Your task to perform on an android device: Open Google Chrome and click the shortcut for Amazon.com Image 0: 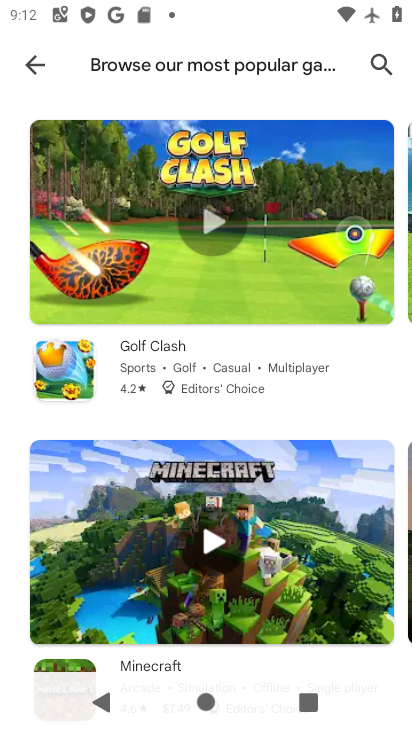
Step 0: press home button
Your task to perform on an android device: Open Google Chrome and click the shortcut for Amazon.com Image 1: 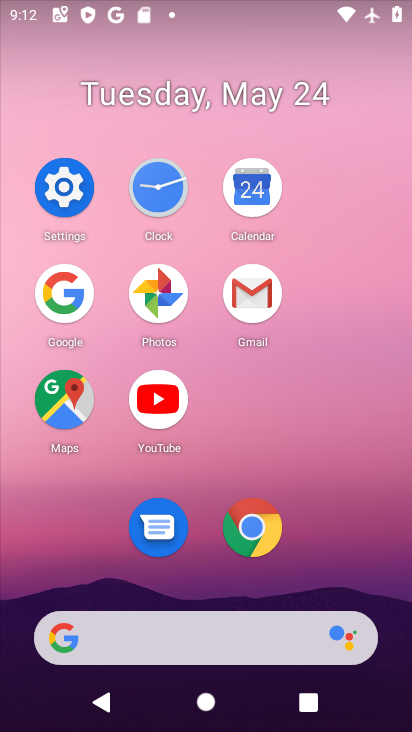
Step 1: click (256, 531)
Your task to perform on an android device: Open Google Chrome and click the shortcut for Amazon.com Image 2: 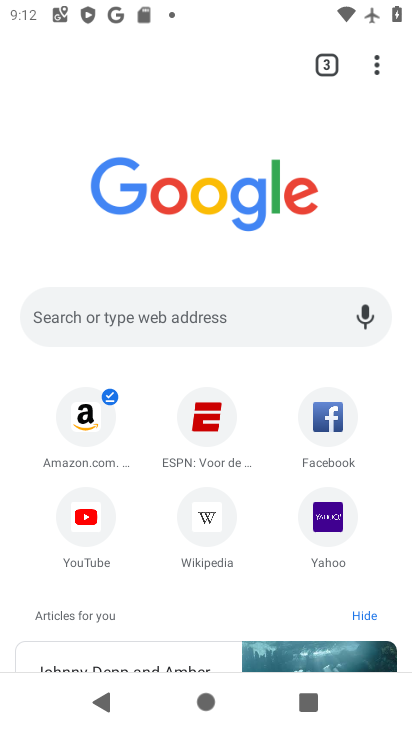
Step 2: click (95, 423)
Your task to perform on an android device: Open Google Chrome and click the shortcut for Amazon.com Image 3: 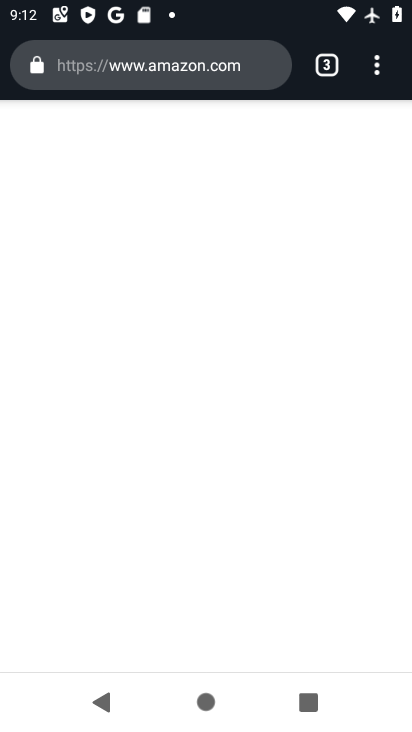
Step 3: click (378, 61)
Your task to perform on an android device: Open Google Chrome and click the shortcut for Amazon.com Image 4: 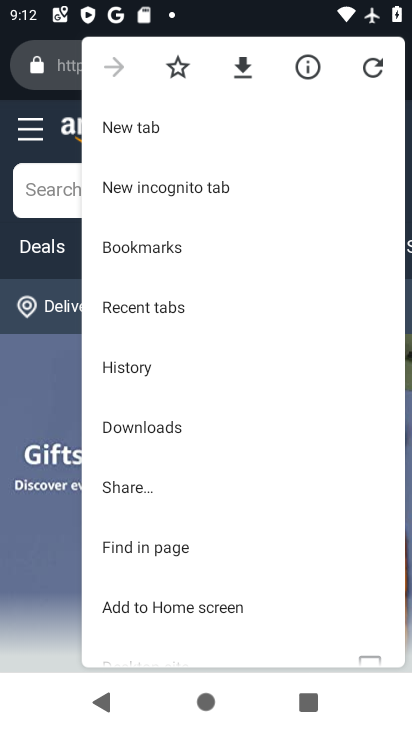
Step 4: click (246, 605)
Your task to perform on an android device: Open Google Chrome and click the shortcut for Amazon.com Image 5: 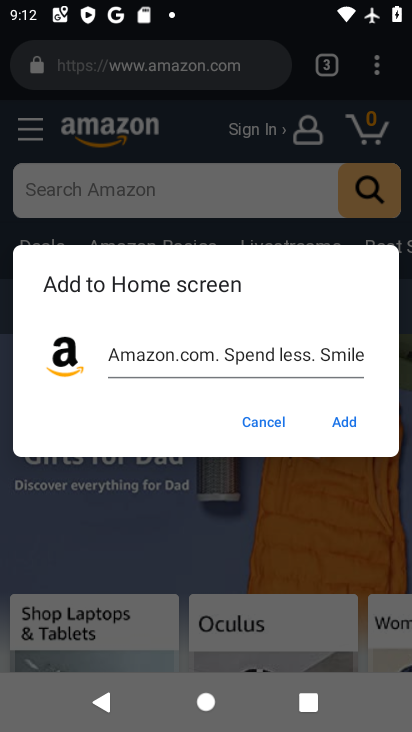
Step 5: click (347, 440)
Your task to perform on an android device: Open Google Chrome and click the shortcut for Amazon.com Image 6: 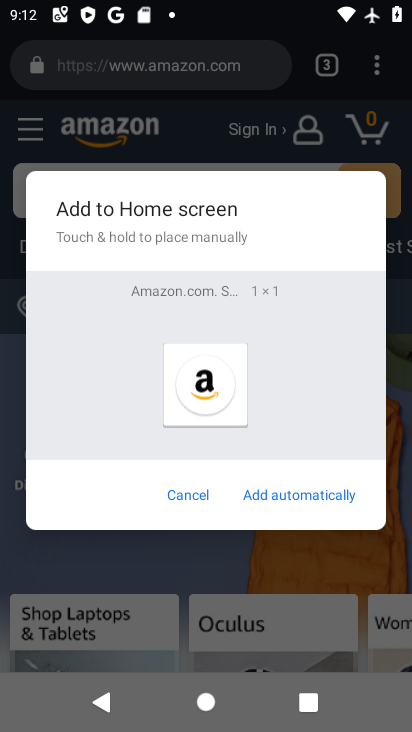
Step 6: click (318, 491)
Your task to perform on an android device: Open Google Chrome and click the shortcut for Amazon.com Image 7: 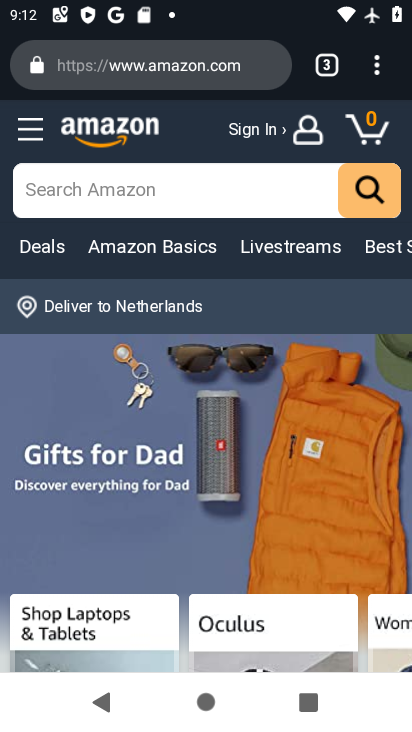
Step 7: task complete